Your task to perform on an android device: Go to Reddit.com Image 0: 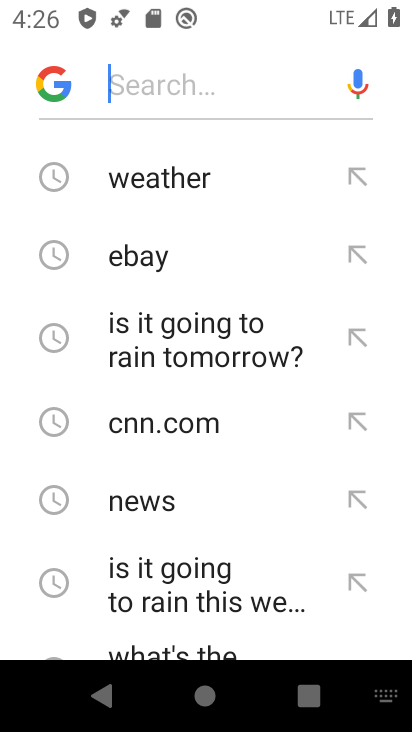
Step 0: press back button
Your task to perform on an android device: Go to Reddit.com Image 1: 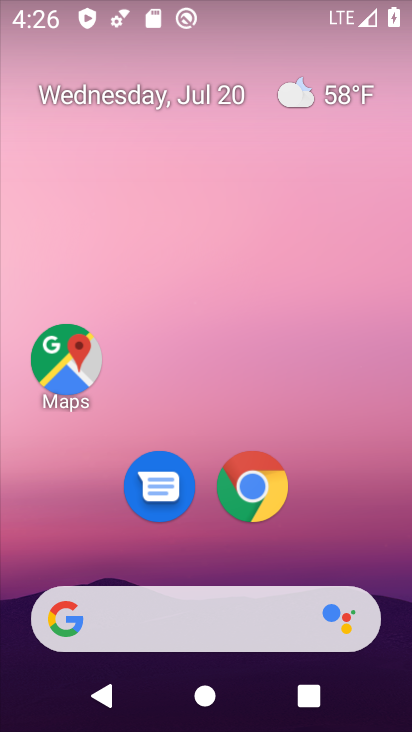
Step 1: click (252, 487)
Your task to perform on an android device: Go to Reddit.com Image 2: 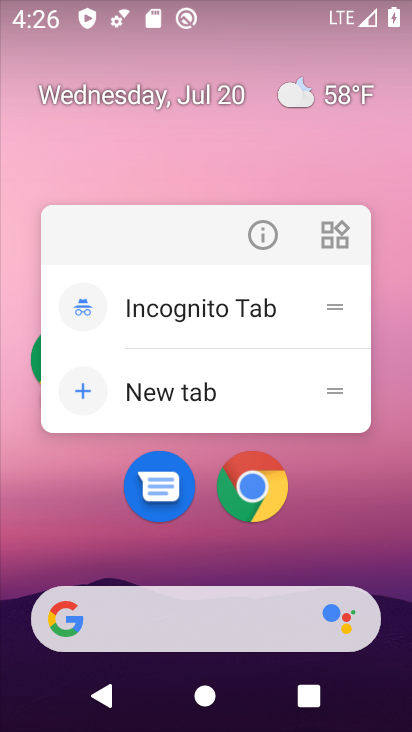
Step 2: click (257, 469)
Your task to perform on an android device: Go to Reddit.com Image 3: 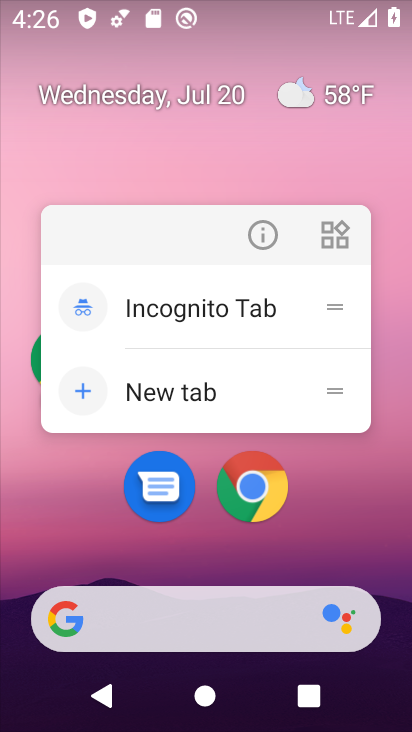
Step 3: click (245, 496)
Your task to perform on an android device: Go to Reddit.com Image 4: 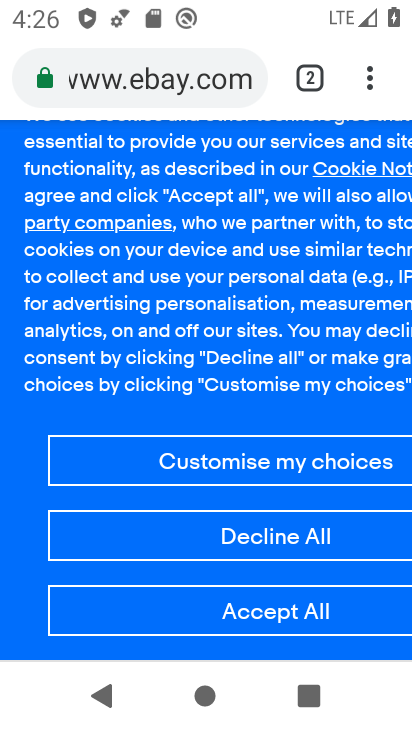
Step 4: click (316, 76)
Your task to perform on an android device: Go to Reddit.com Image 5: 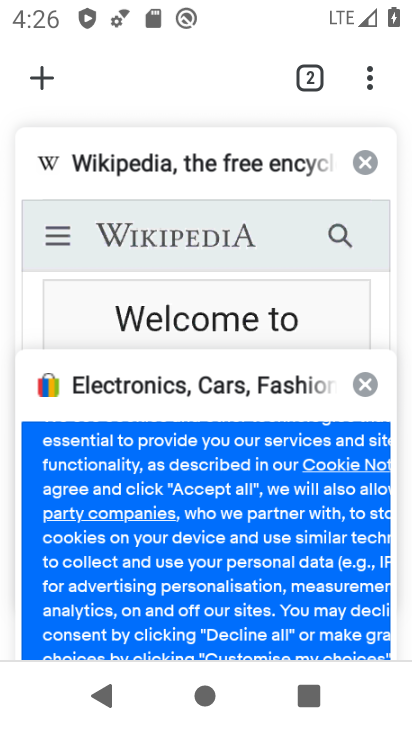
Step 5: click (41, 67)
Your task to perform on an android device: Go to Reddit.com Image 6: 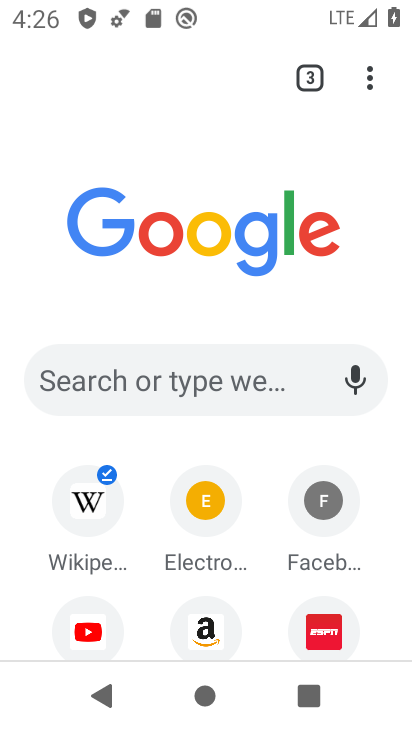
Step 6: click (128, 398)
Your task to perform on an android device: Go to Reddit.com Image 7: 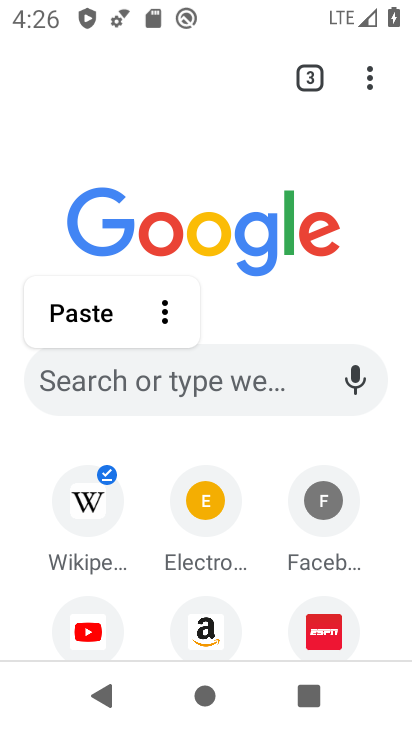
Step 7: type "reddit.com"
Your task to perform on an android device: Go to Reddit.com Image 8: 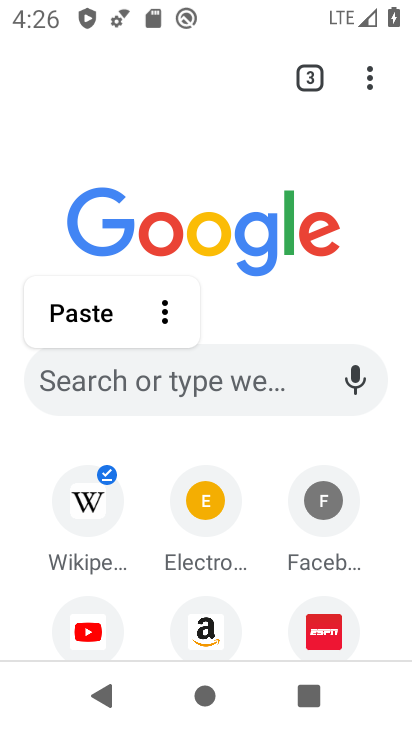
Step 8: click (166, 385)
Your task to perform on an android device: Go to Reddit.com Image 9: 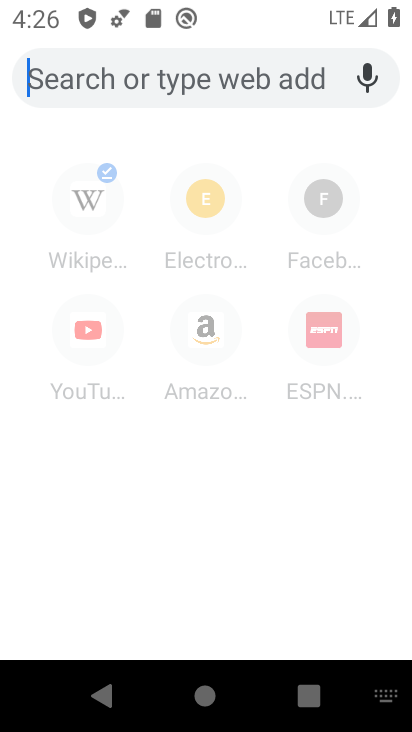
Step 9: type "reddit.com"
Your task to perform on an android device: Go to Reddit.com Image 10: 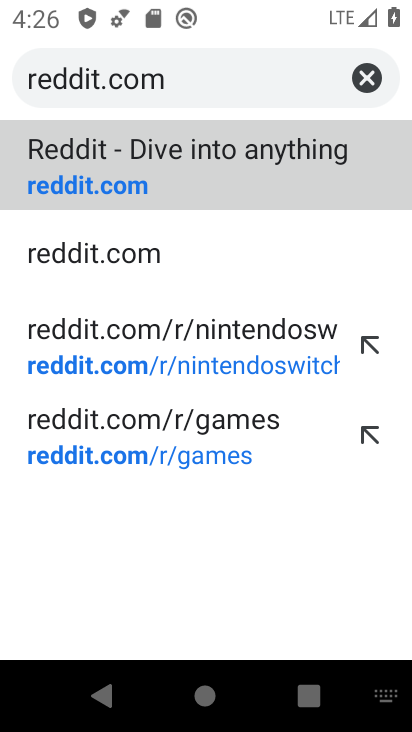
Step 10: click (211, 165)
Your task to perform on an android device: Go to Reddit.com Image 11: 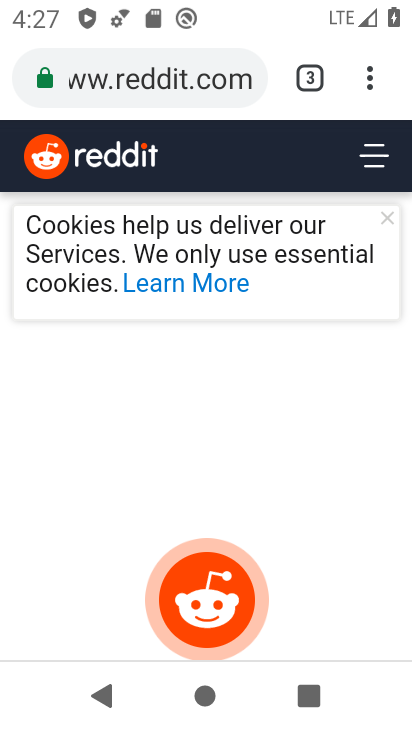
Step 11: task complete